Your task to perform on an android device: Open Google Chrome Image 0: 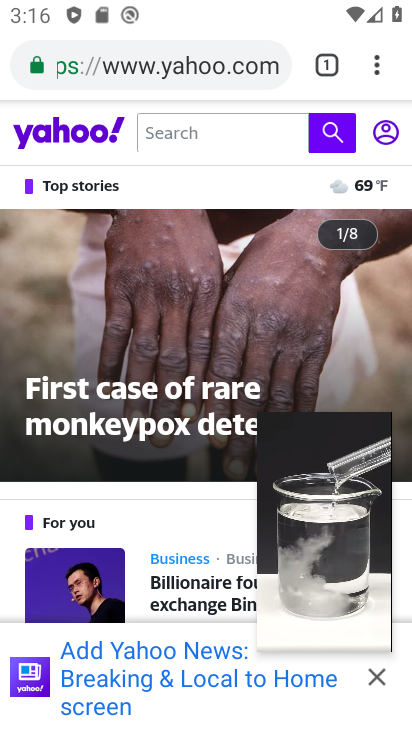
Step 0: task complete